Your task to perform on an android device: check the backup settings in the google photos Image 0: 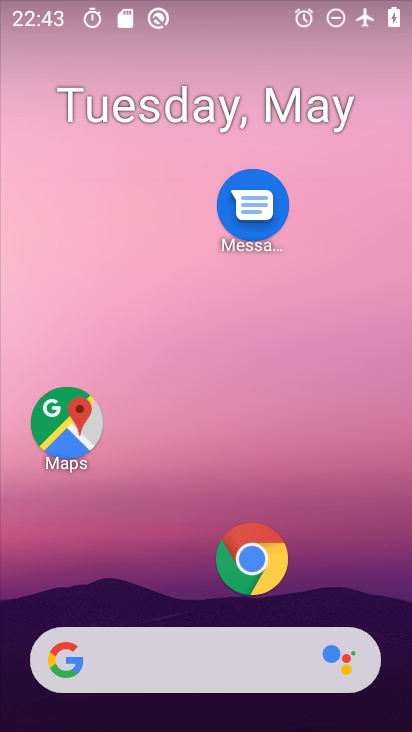
Step 0: drag from (183, 587) to (194, 159)
Your task to perform on an android device: check the backup settings in the google photos Image 1: 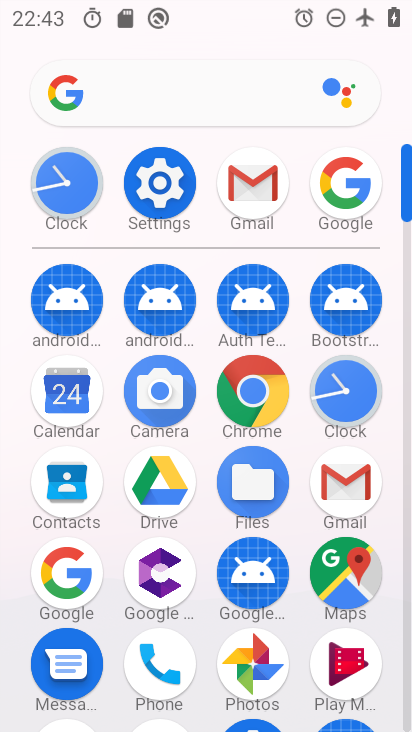
Step 1: click (226, 642)
Your task to perform on an android device: check the backup settings in the google photos Image 2: 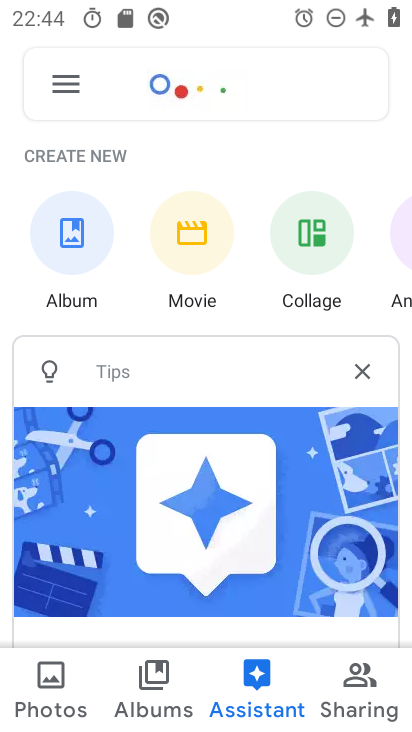
Step 2: drag from (214, 548) to (236, 232)
Your task to perform on an android device: check the backup settings in the google photos Image 3: 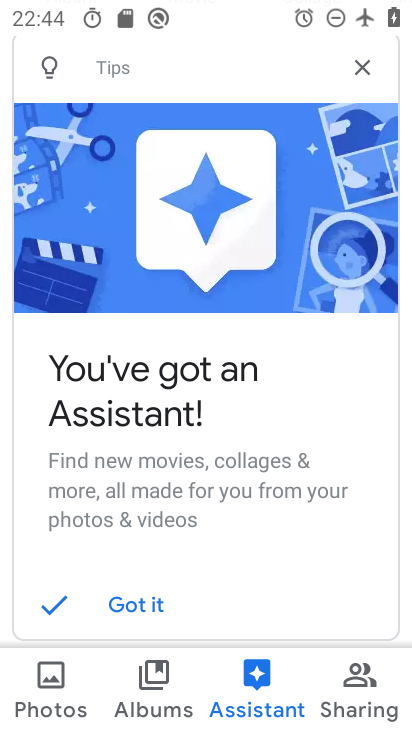
Step 3: drag from (202, 162) to (230, 542)
Your task to perform on an android device: check the backup settings in the google photos Image 4: 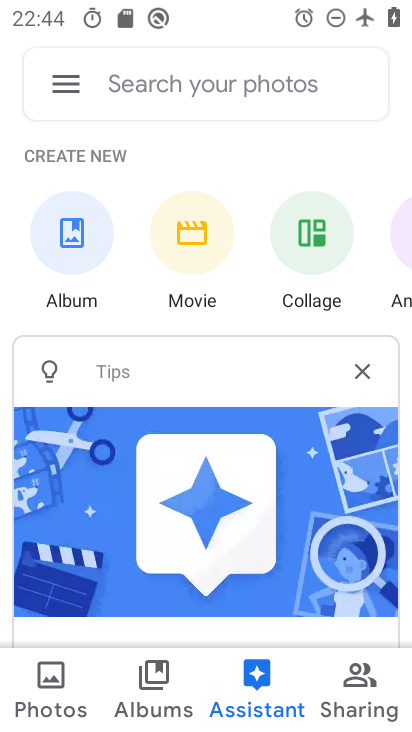
Step 4: click (76, 105)
Your task to perform on an android device: check the backup settings in the google photos Image 5: 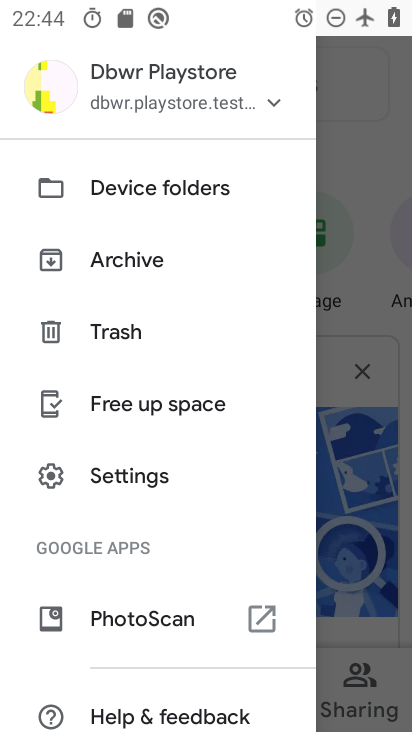
Step 5: drag from (163, 666) to (150, 419)
Your task to perform on an android device: check the backup settings in the google photos Image 6: 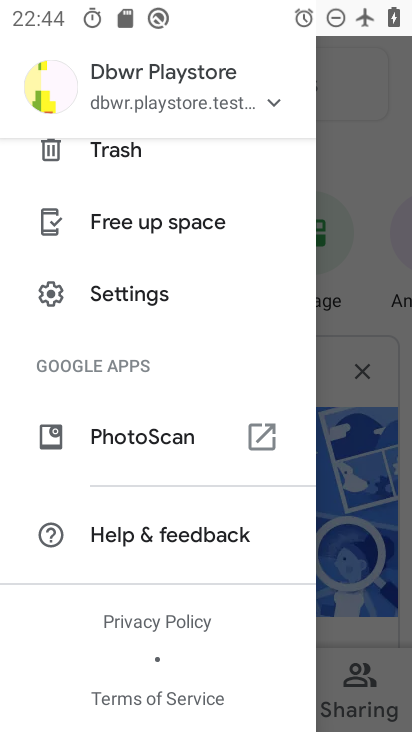
Step 6: click (132, 292)
Your task to perform on an android device: check the backup settings in the google photos Image 7: 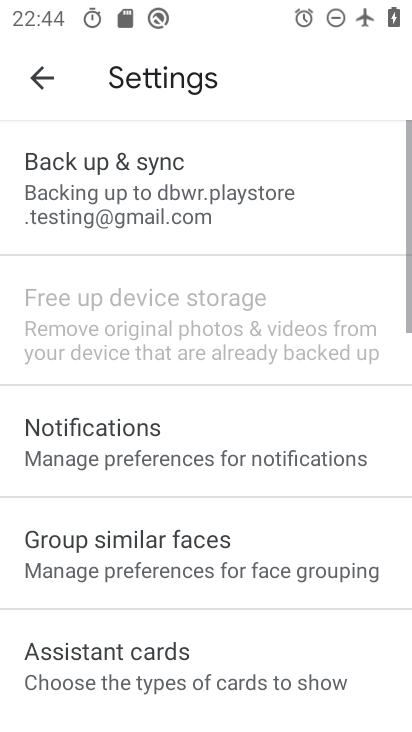
Step 7: click (157, 146)
Your task to perform on an android device: check the backup settings in the google photos Image 8: 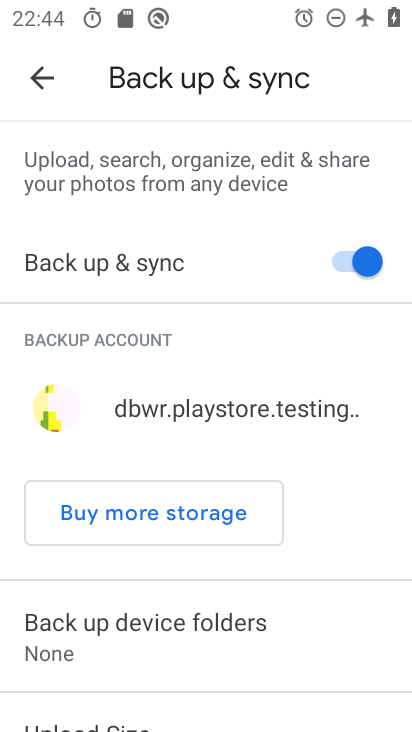
Step 8: task complete